Your task to perform on an android device: See recent photos Image 0: 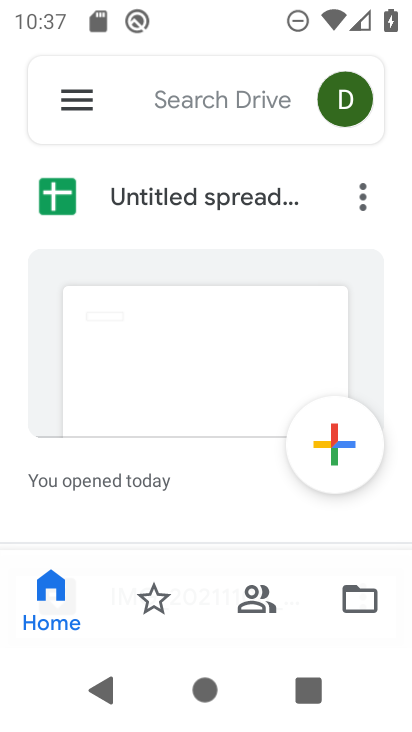
Step 0: press home button
Your task to perform on an android device: See recent photos Image 1: 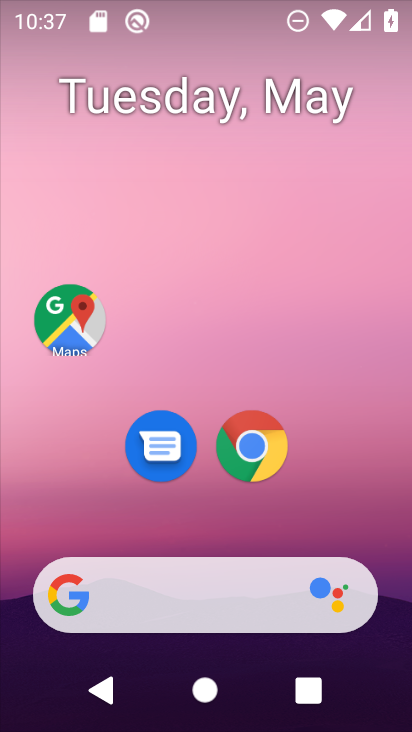
Step 1: drag from (224, 500) to (296, 170)
Your task to perform on an android device: See recent photos Image 2: 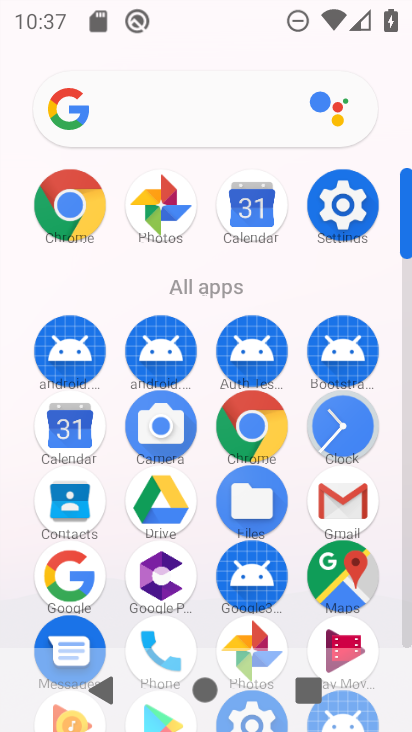
Step 2: click (177, 223)
Your task to perform on an android device: See recent photos Image 3: 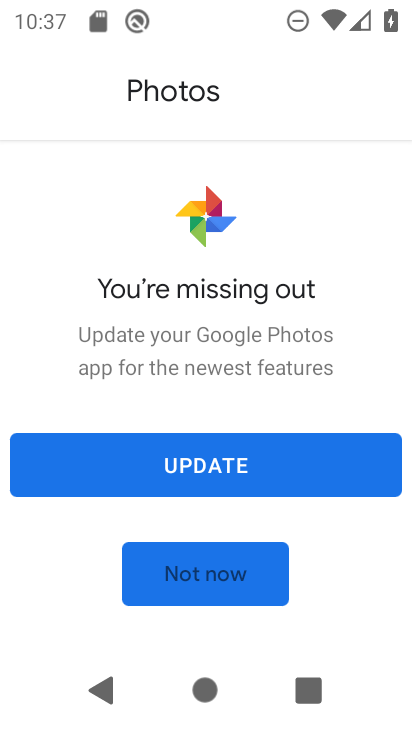
Step 3: click (224, 557)
Your task to perform on an android device: See recent photos Image 4: 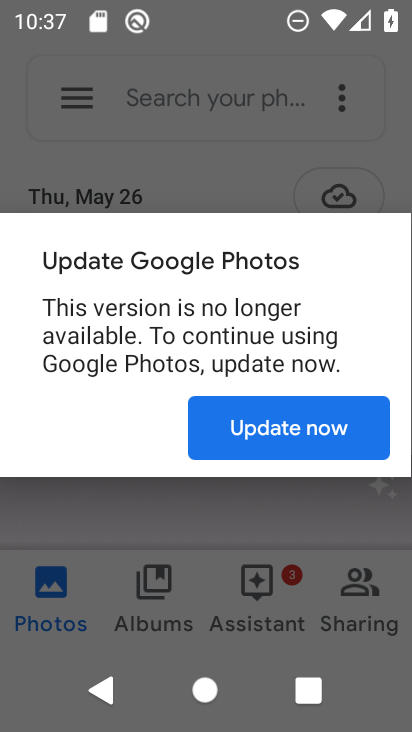
Step 4: click (324, 425)
Your task to perform on an android device: See recent photos Image 5: 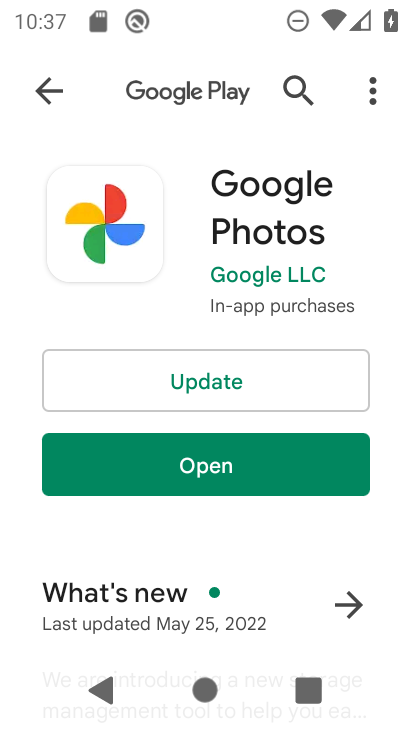
Step 5: click (308, 458)
Your task to perform on an android device: See recent photos Image 6: 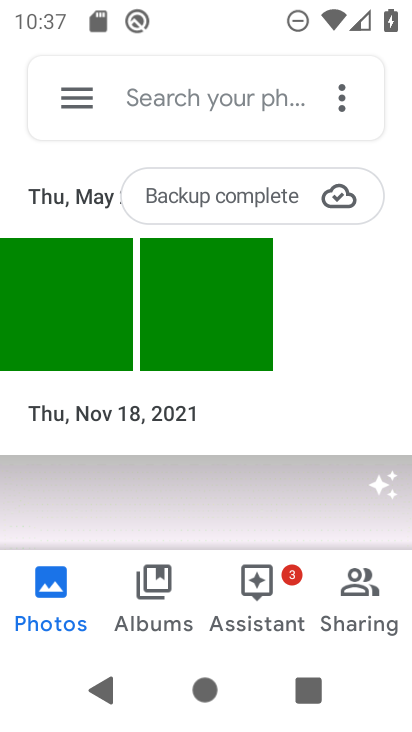
Step 6: task complete